Your task to perform on an android device: turn on the 12-hour format for clock Image 0: 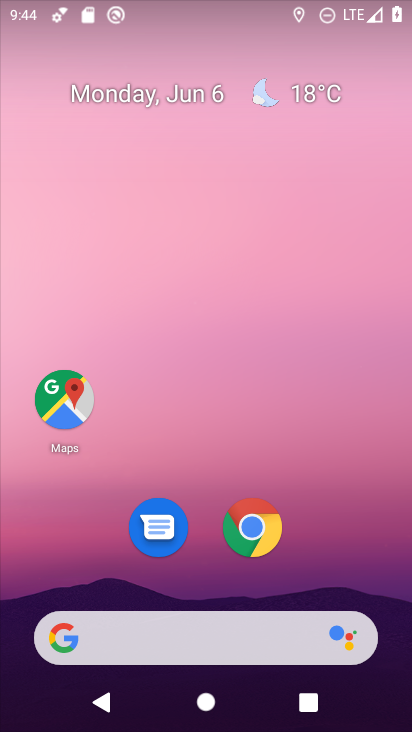
Step 0: drag from (374, 527) to (368, 139)
Your task to perform on an android device: turn on the 12-hour format for clock Image 1: 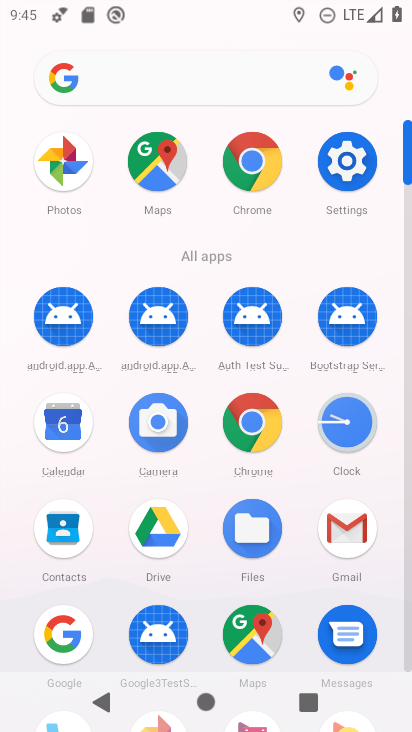
Step 1: click (338, 445)
Your task to perform on an android device: turn on the 12-hour format for clock Image 2: 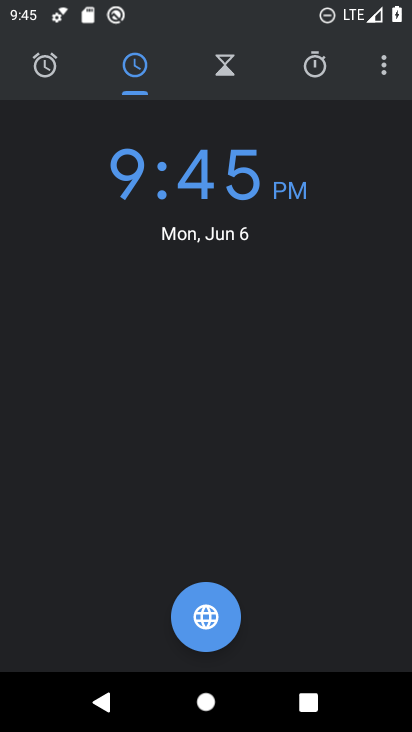
Step 2: click (379, 81)
Your task to perform on an android device: turn on the 12-hour format for clock Image 3: 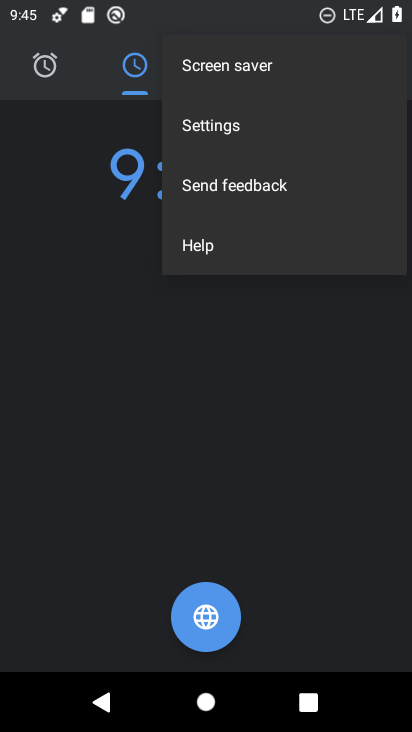
Step 3: click (253, 124)
Your task to perform on an android device: turn on the 12-hour format for clock Image 4: 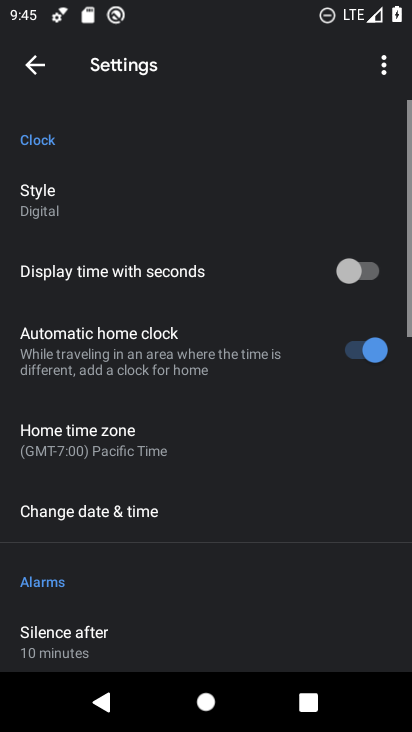
Step 4: drag from (224, 435) to (256, 344)
Your task to perform on an android device: turn on the 12-hour format for clock Image 5: 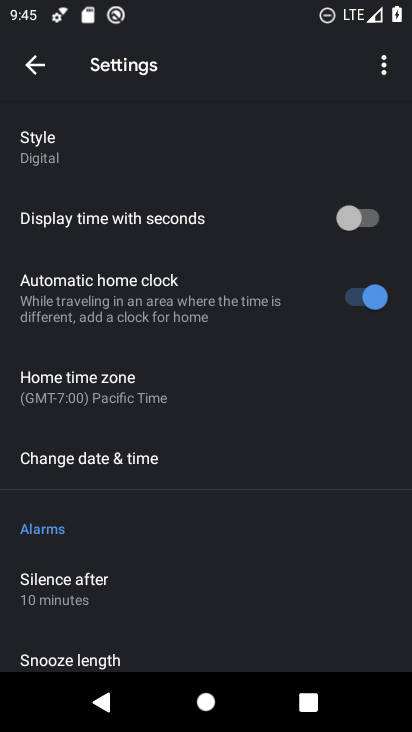
Step 5: drag from (266, 447) to (262, 333)
Your task to perform on an android device: turn on the 12-hour format for clock Image 6: 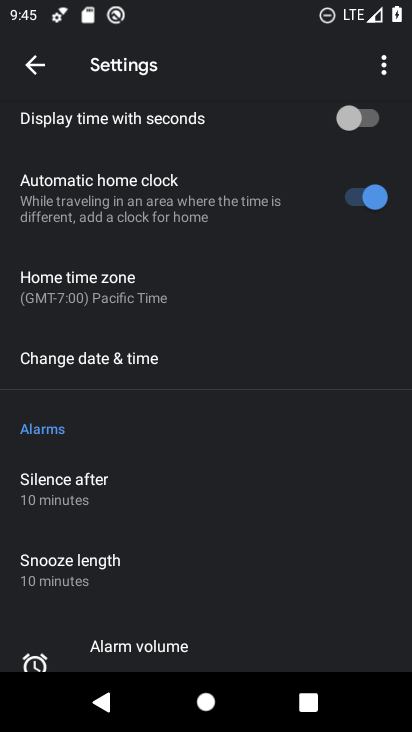
Step 6: drag from (277, 482) to (279, 357)
Your task to perform on an android device: turn on the 12-hour format for clock Image 7: 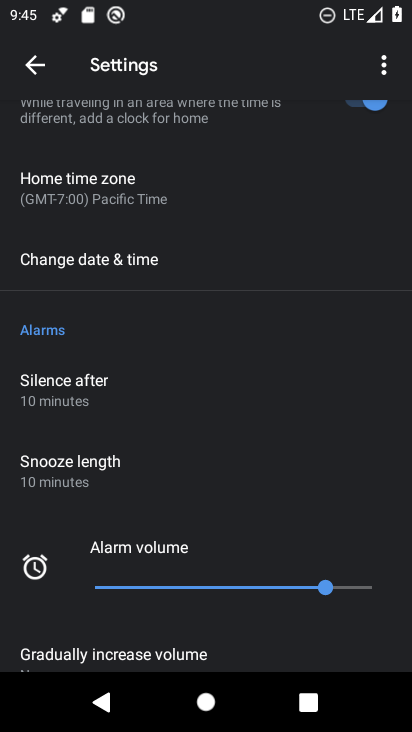
Step 7: click (131, 273)
Your task to perform on an android device: turn on the 12-hour format for clock Image 8: 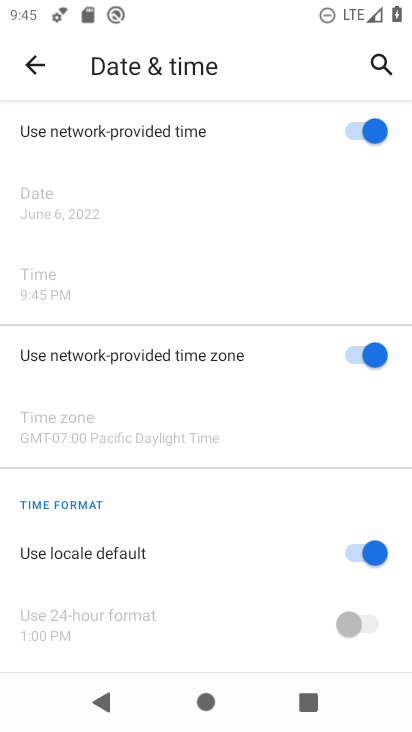
Step 8: drag from (264, 476) to (266, 297)
Your task to perform on an android device: turn on the 12-hour format for clock Image 9: 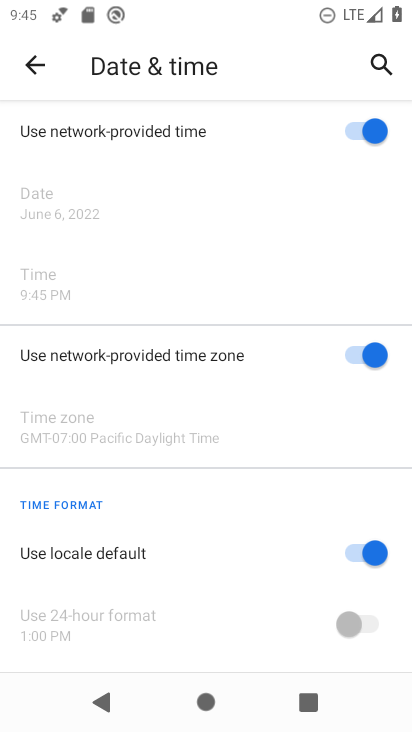
Step 9: click (360, 554)
Your task to perform on an android device: turn on the 12-hour format for clock Image 10: 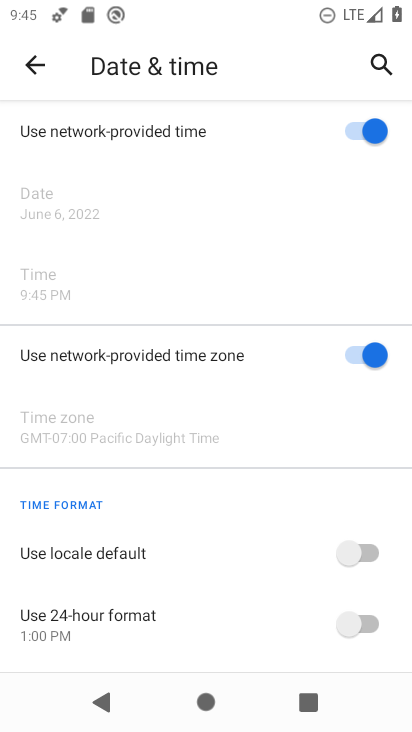
Step 10: task complete